Your task to perform on an android device: turn notification dots on Image 0: 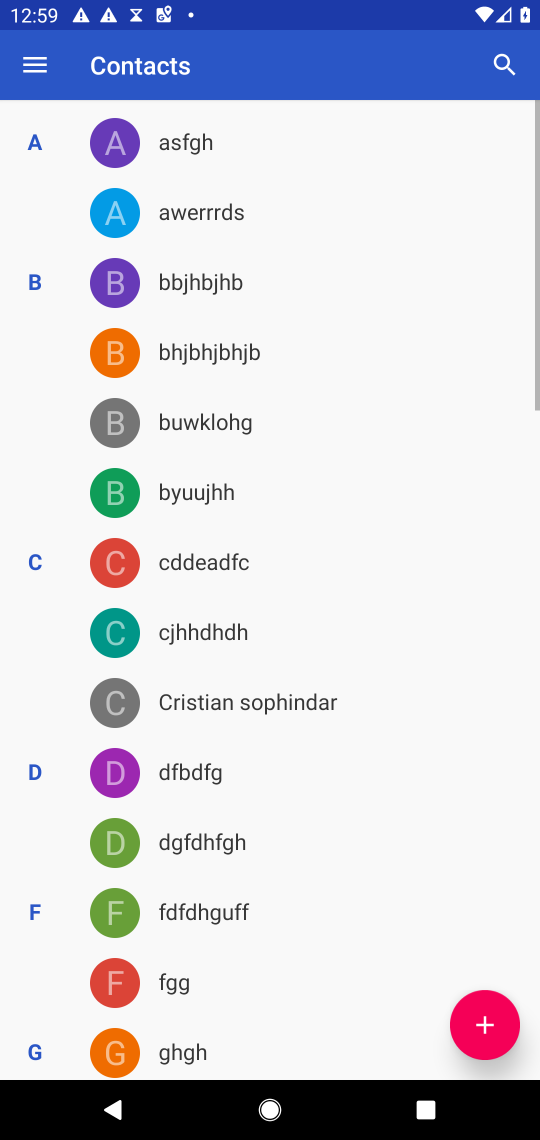
Step 0: press home button
Your task to perform on an android device: turn notification dots on Image 1: 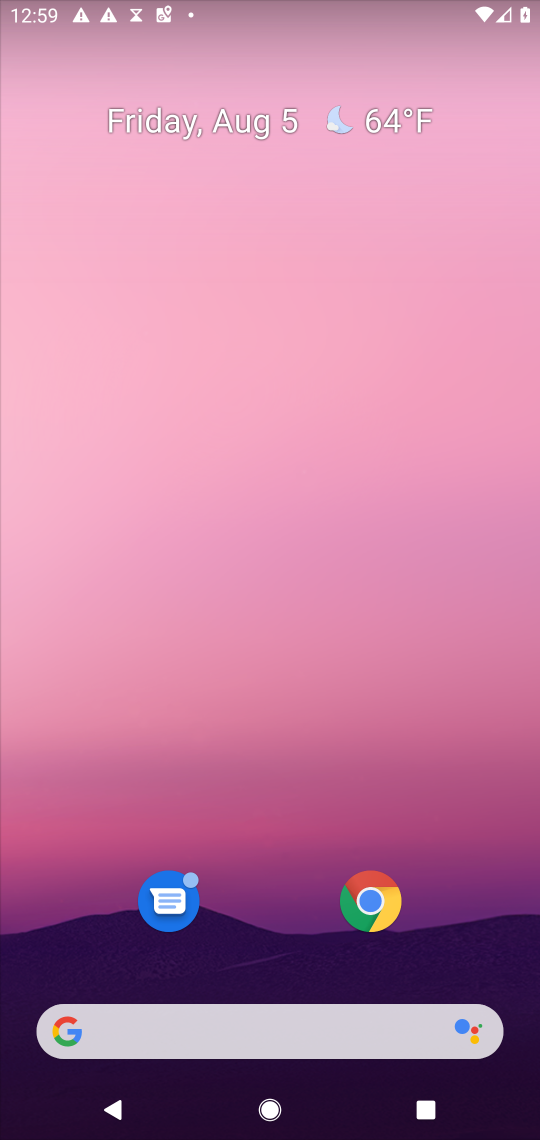
Step 1: drag from (239, 479) to (240, 179)
Your task to perform on an android device: turn notification dots on Image 2: 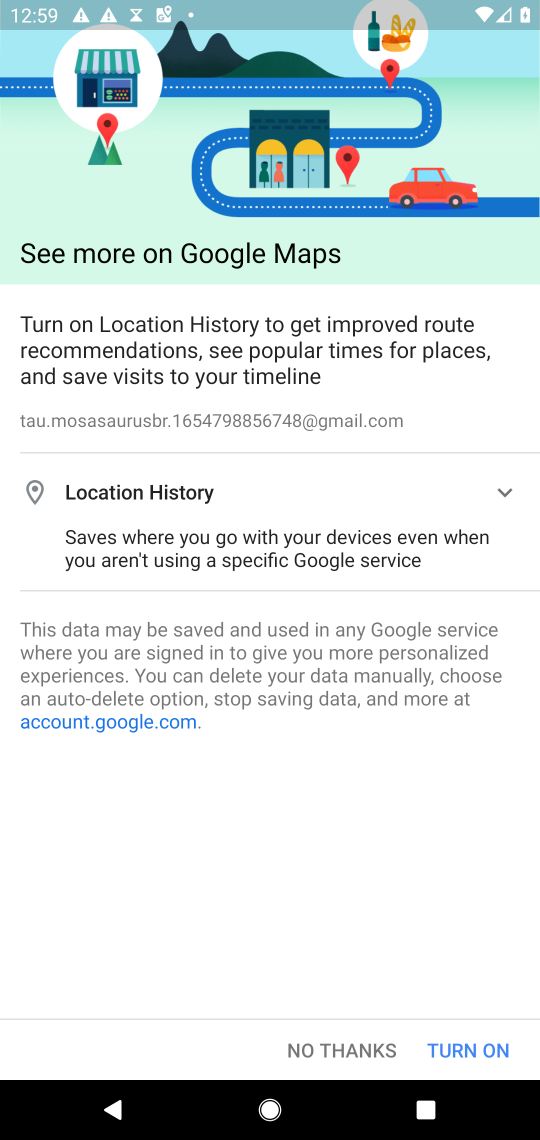
Step 2: click (330, 1057)
Your task to perform on an android device: turn notification dots on Image 3: 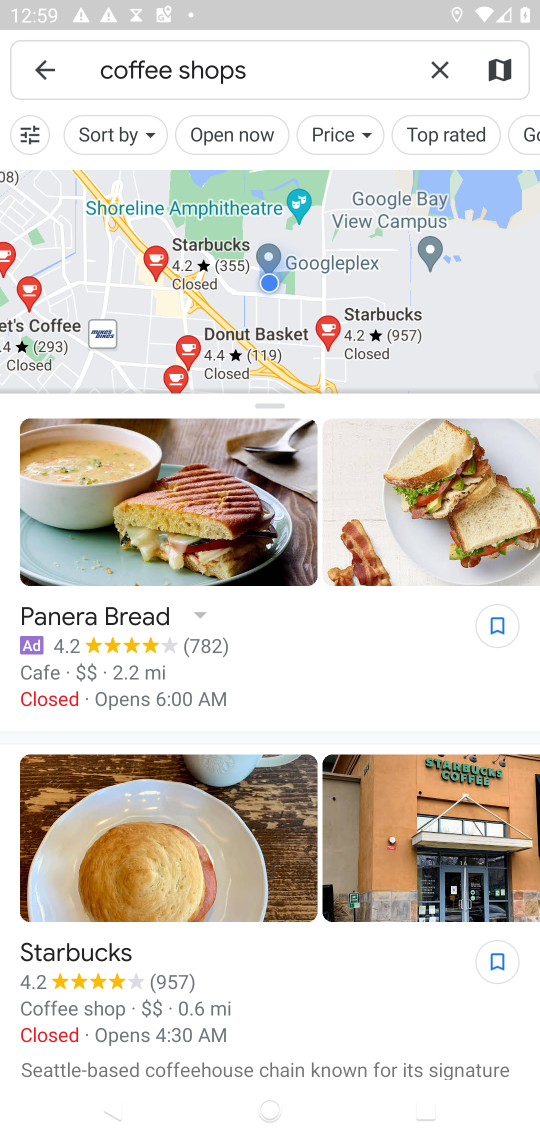
Step 3: press home button
Your task to perform on an android device: turn notification dots on Image 4: 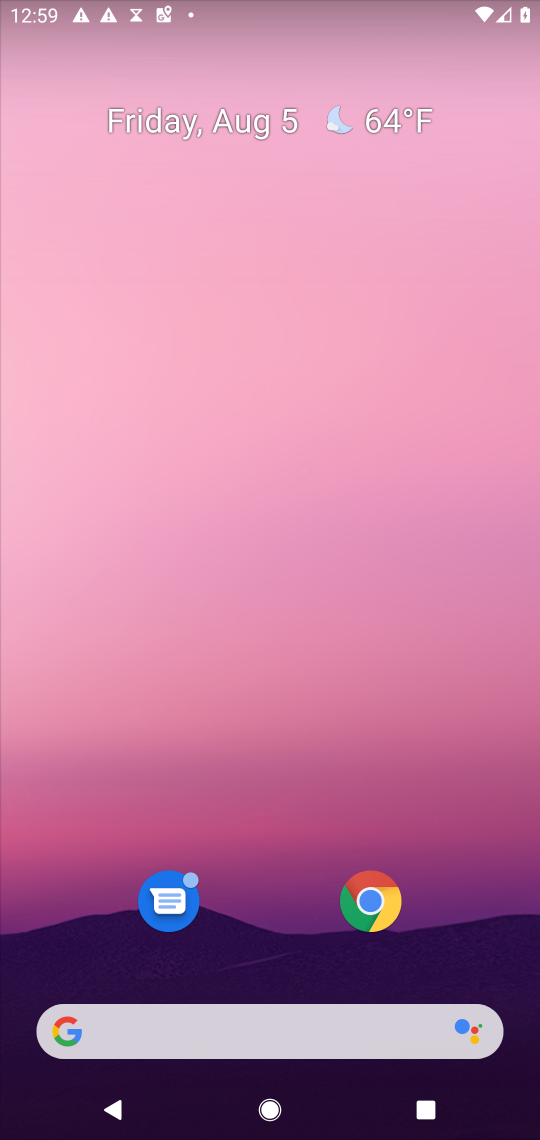
Step 4: drag from (277, 869) to (394, 77)
Your task to perform on an android device: turn notification dots on Image 5: 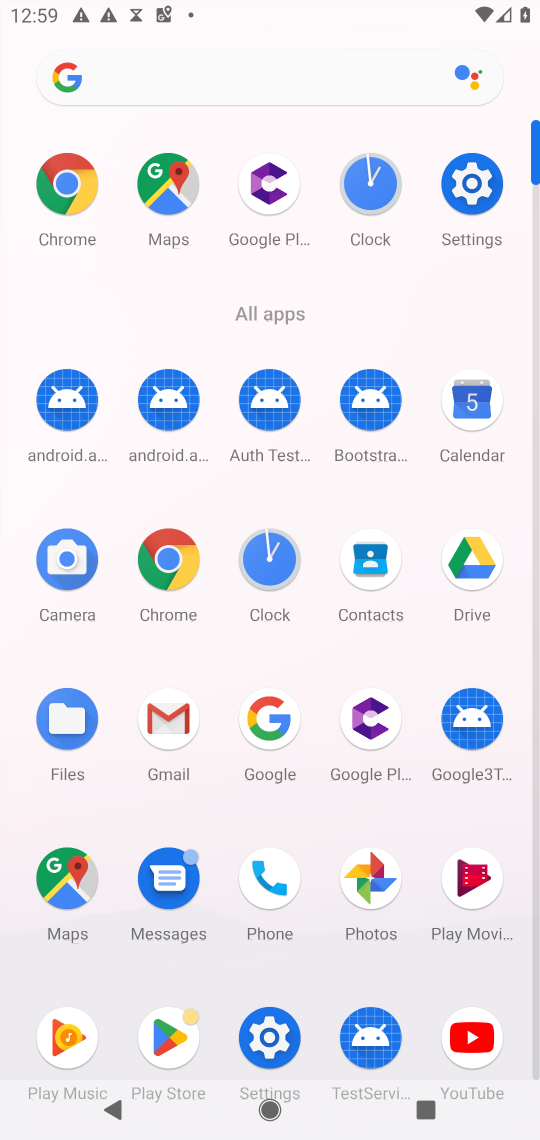
Step 5: click (475, 177)
Your task to perform on an android device: turn notification dots on Image 6: 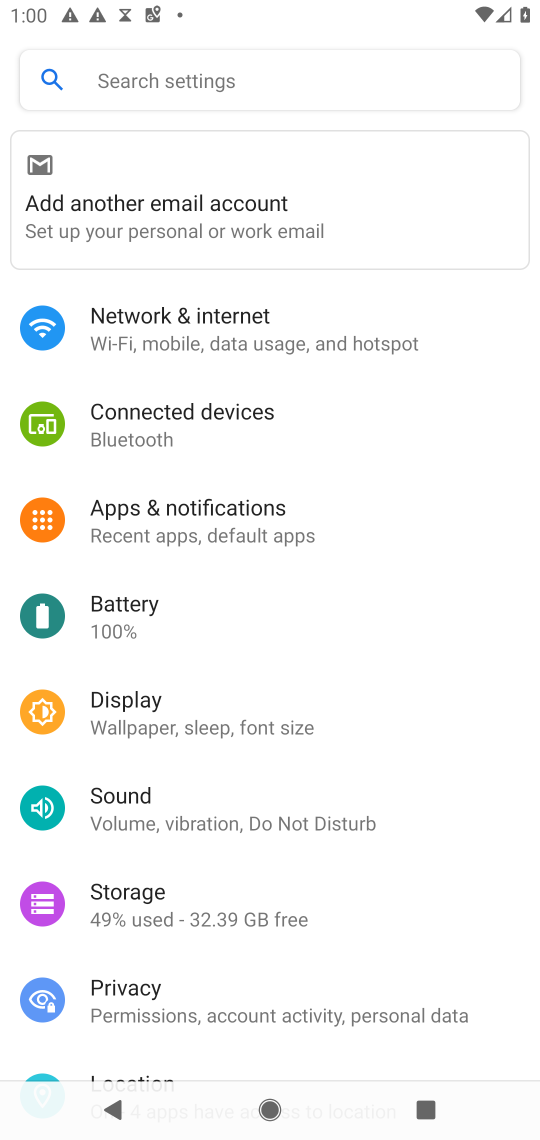
Step 6: click (184, 520)
Your task to perform on an android device: turn notification dots on Image 7: 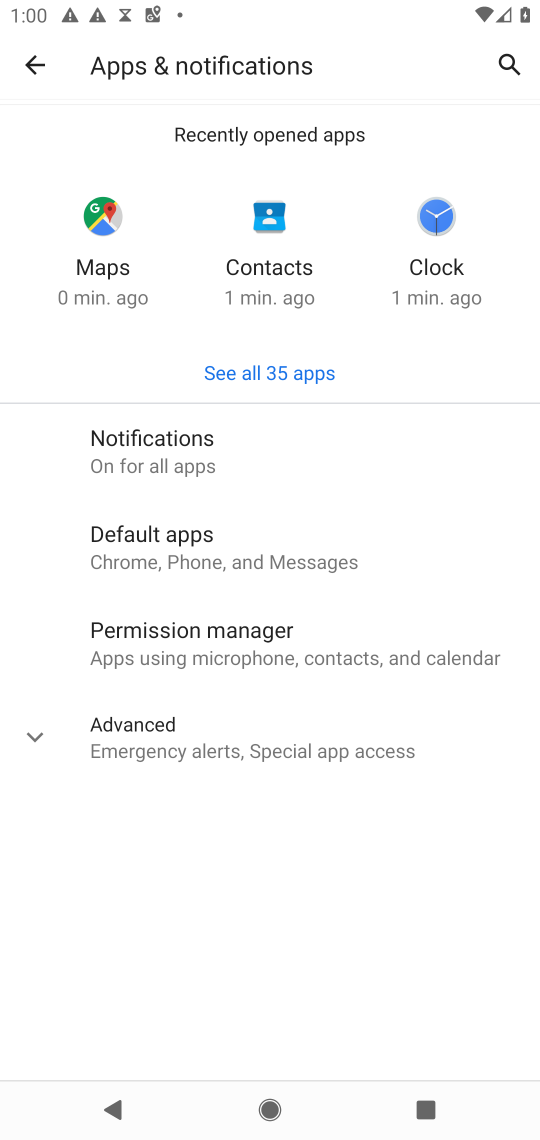
Step 7: click (172, 428)
Your task to perform on an android device: turn notification dots on Image 8: 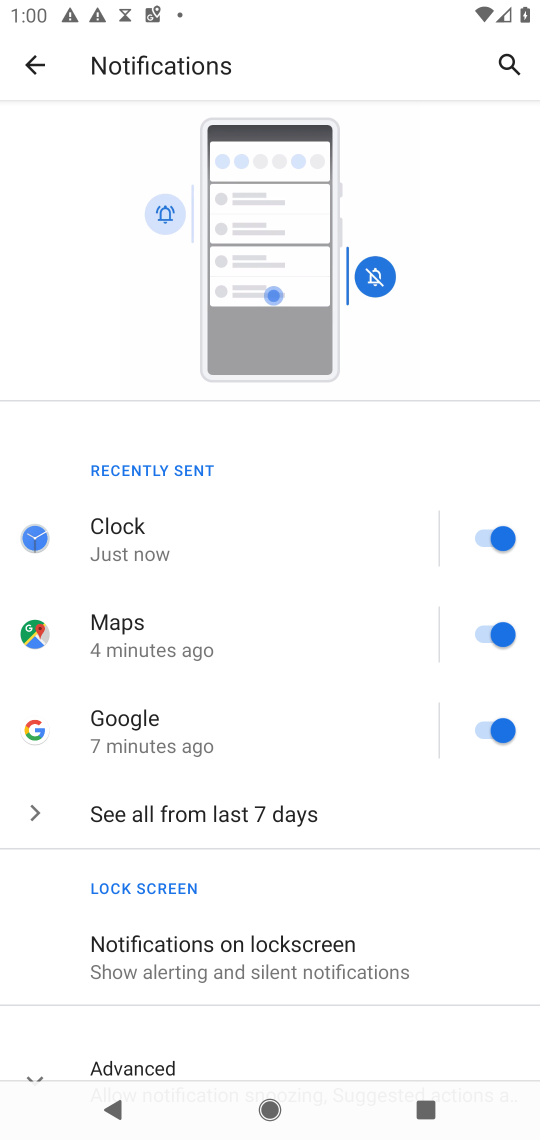
Step 8: drag from (259, 928) to (314, 166)
Your task to perform on an android device: turn notification dots on Image 9: 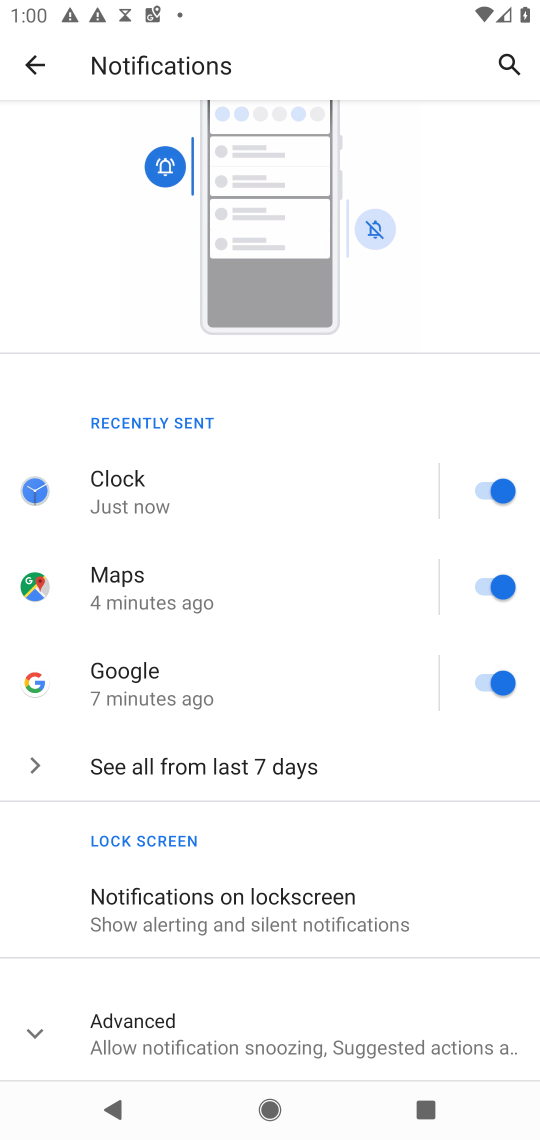
Step 9: click (295, 1035)
Your task to perform on an android device: turn notification dots on Image 10: 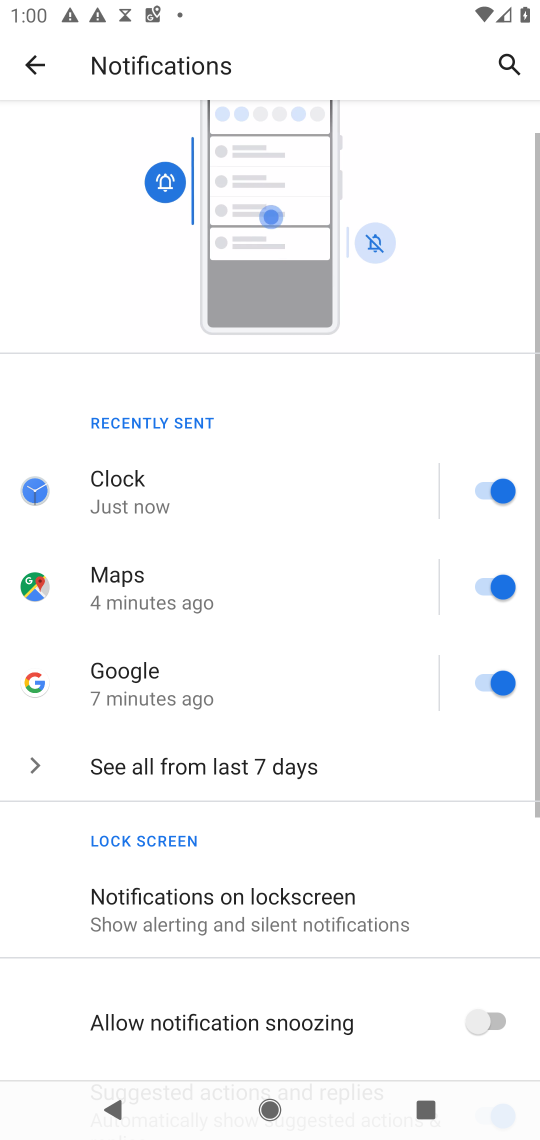
Step 10: task complete